Your task to perform on an android device: snooze an email in the gmail app Image 0: 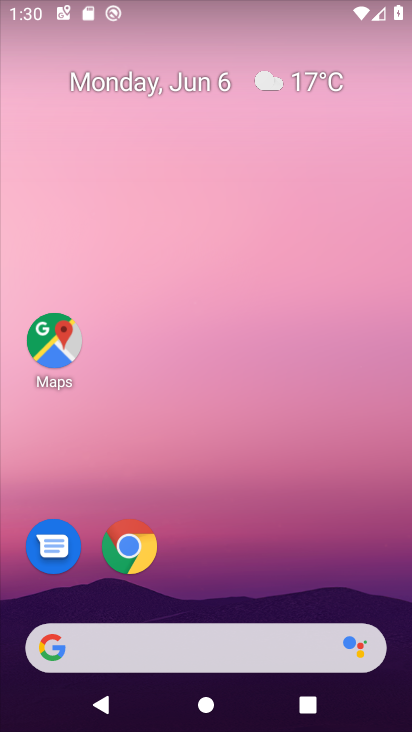
Step 0: drag from (122, 603) to (121, 158)
Your task to perform on an android device: snooze an email in the gmail app Image 1: 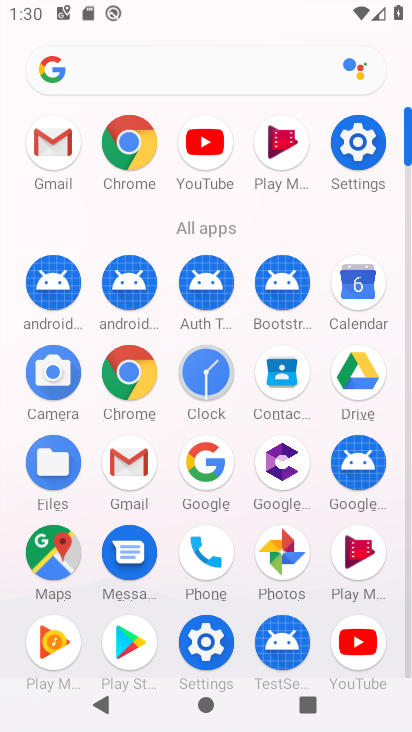
Step 1: click (61, 173)
Your task to perform on an android device: snooze an email in the gmail app Image 2: 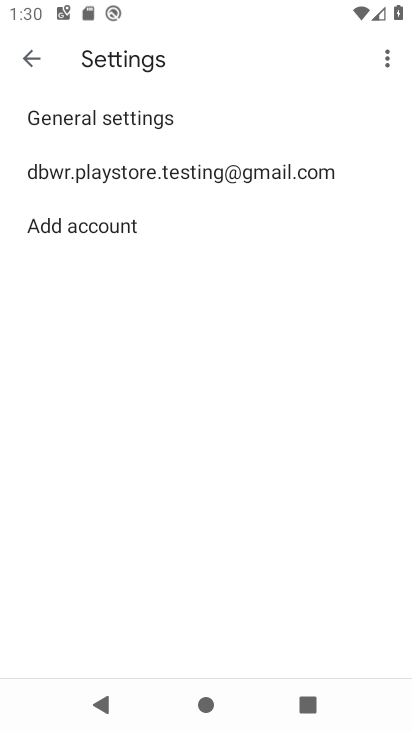
Step 2: click (22, 54)
Your task to perform on an android device: snooze an email in the gmail app Image 3: 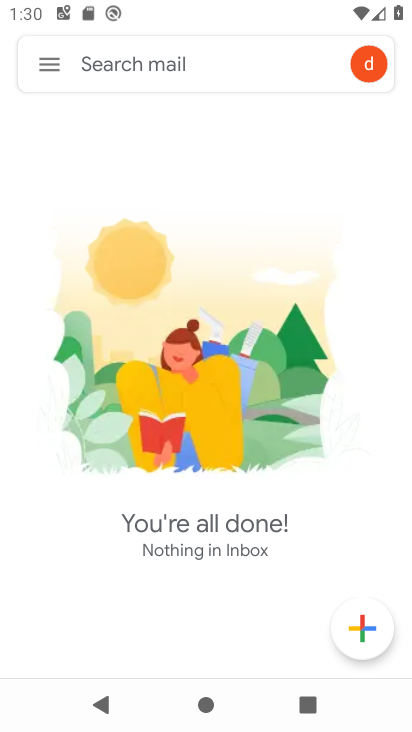
Step 3: click (33, 62)
Your task to perform on an android device: snooze an email in the gmail app Image 4: 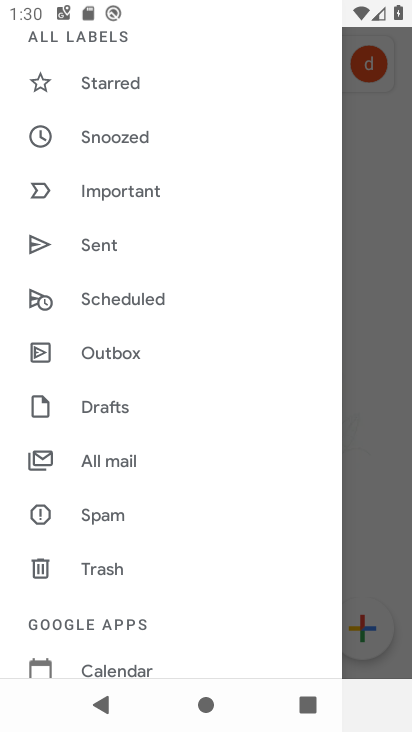
Step 4: click (141, 457)
Your task to perform on an android device: snooze an email in the gmail app Image 5: 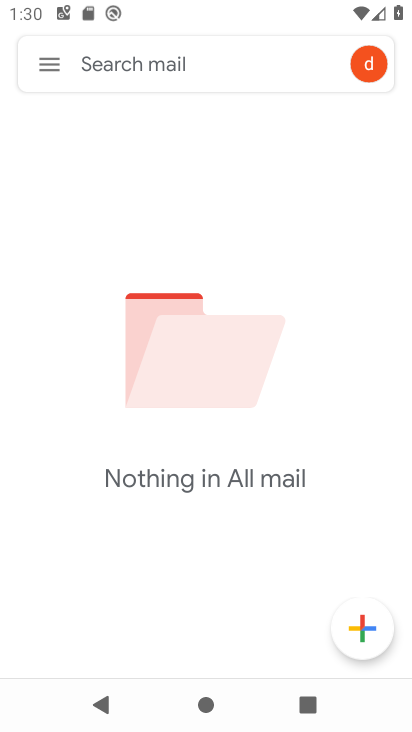
Step 5: task complete